Your task to perform on an android device: Clear the shopping cart on target.com. Image 0: 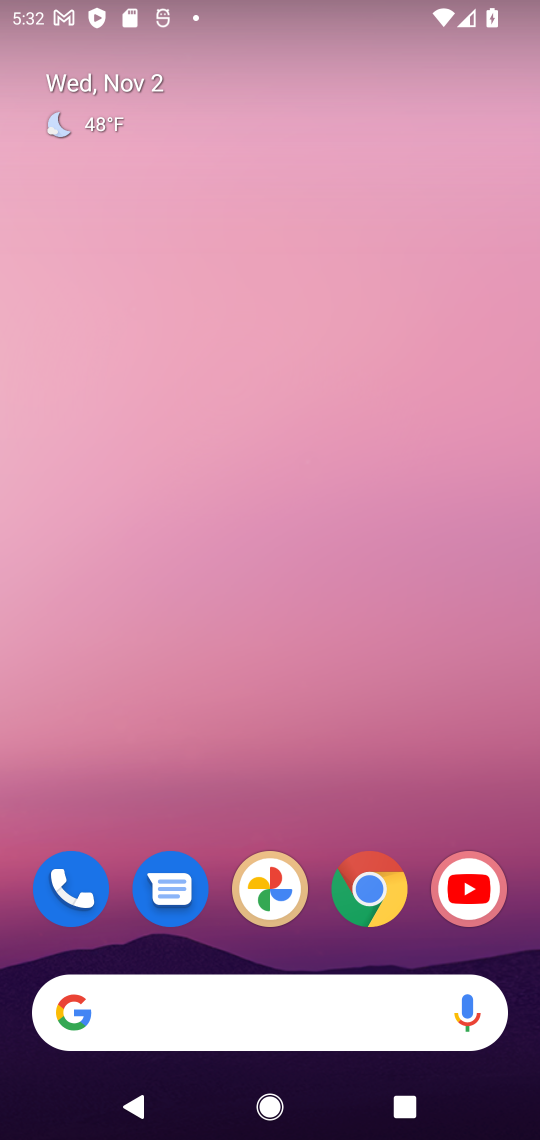
Step 0: click (381, 902)
Your task to perform on an android device: Clear the shopping cart on target.com. Image 1: 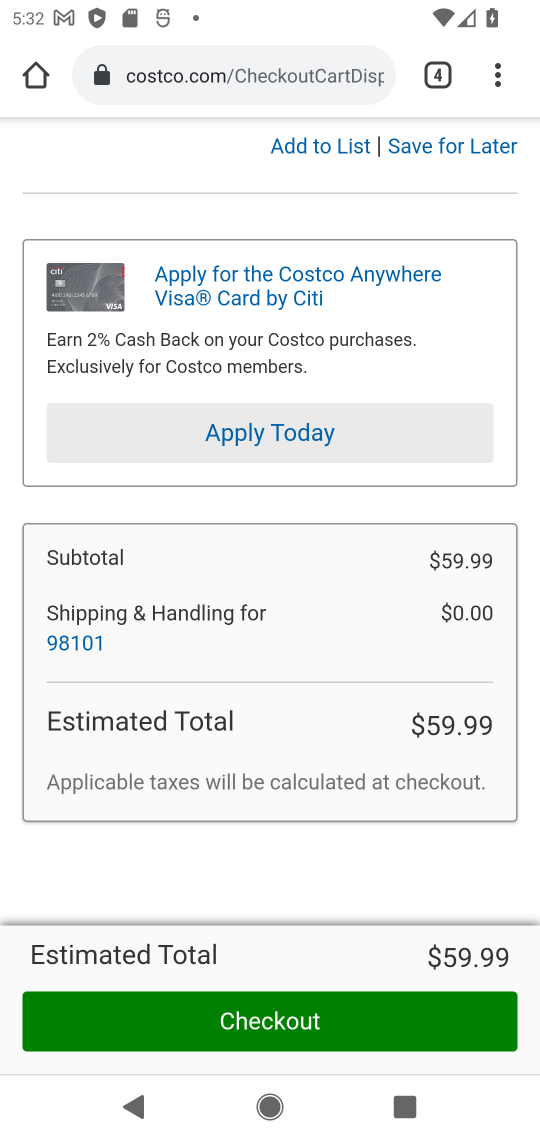
Step 1: click (319, 68)
Your task to perform on an android device: Clear the shopping cart on target.com. Image 2: 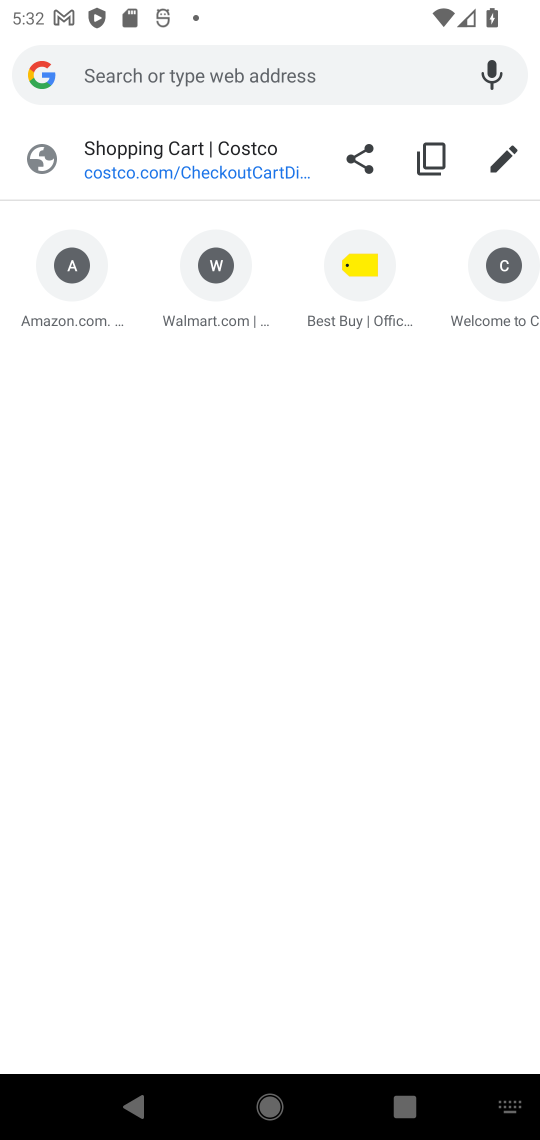
Step 2: type " target.com"
Your task to perform on an android device: Clear the shopping cart on target.com. Image 3: 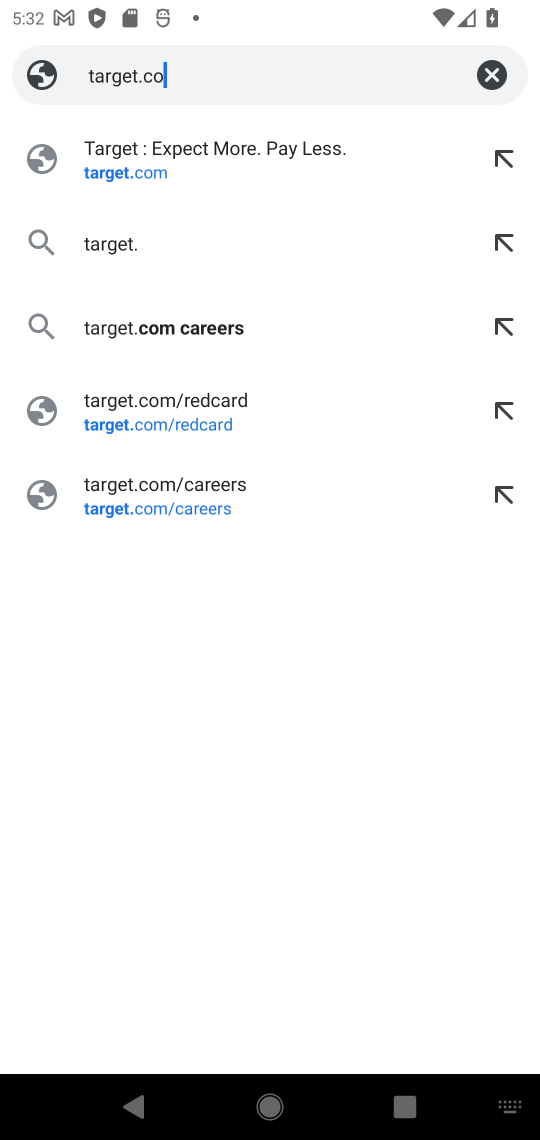
Step 3: press enter
Your task to perform on an android device: Clear the shopping cart on target.com. Image 4: 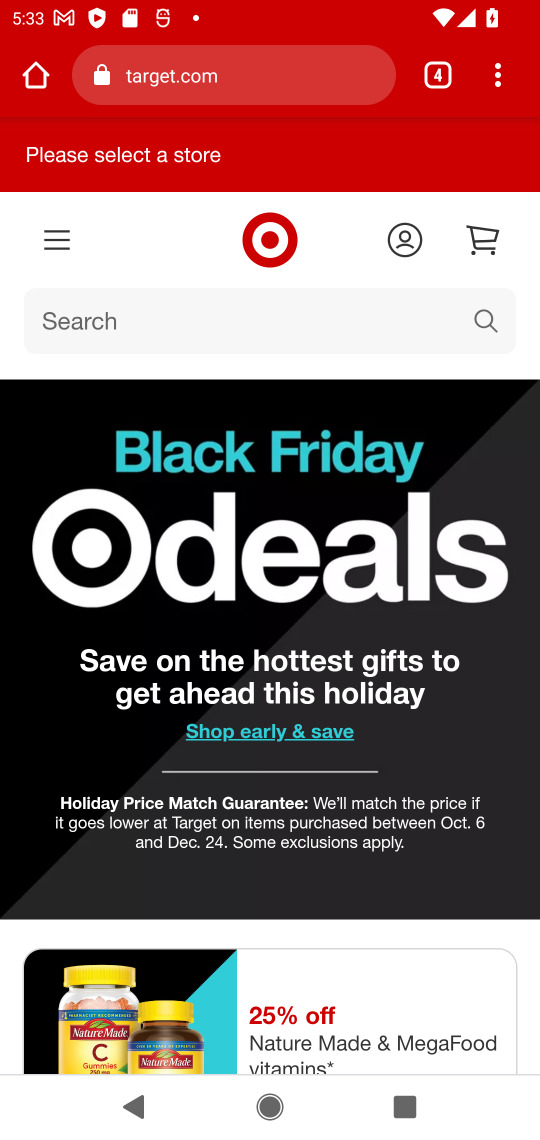
Step 4: click (494, 236)
Your task to perform on an android device: Clear the shopping cart on target.com. Image 5: 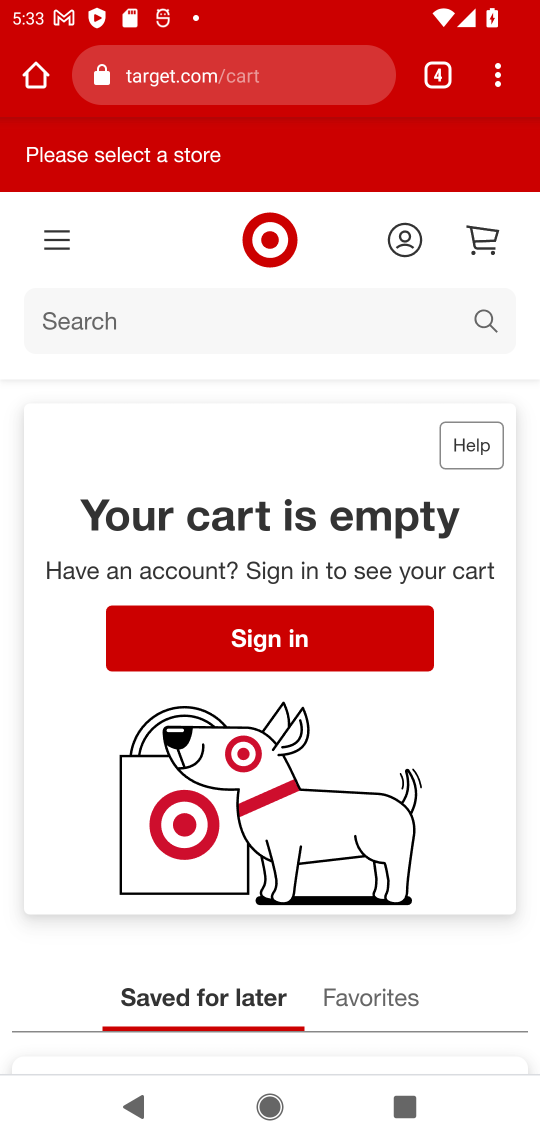
Step 5: task complete